Your task to perform on an android device: Open calendar and show me the first week of next month Image 0: 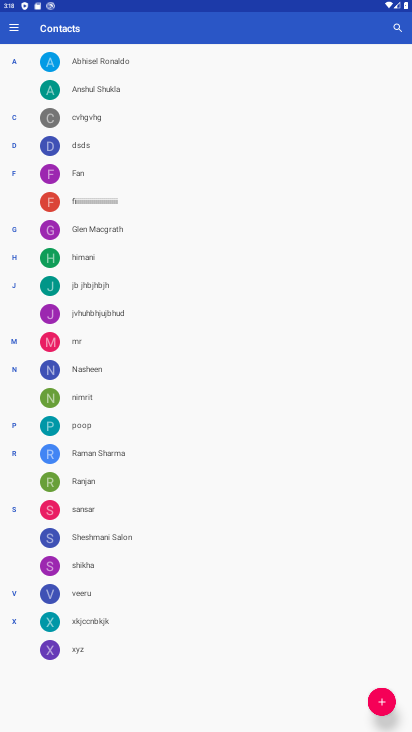
Step 0: press home button
Your task to perform on an android device: Open calendar and show me the first week of next month Image 1: 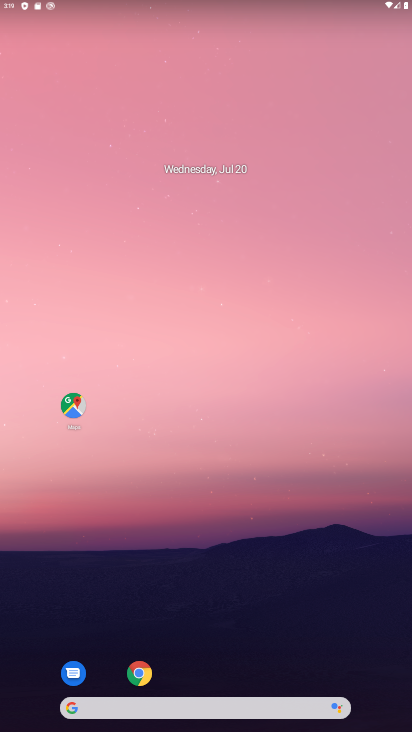
Step 1: drag from (308, 513) to (308, 294)
Your task to perform on an android device: Open calendar and show me the first week of next month Image 2: 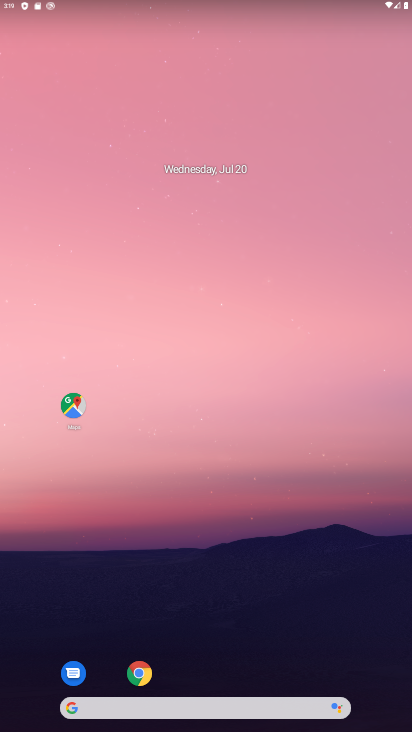
Step 2: drag from (254, 441) to (296, 98)
Your task to perform on an android device: Open calendar and show me the first week of next month Image 3: 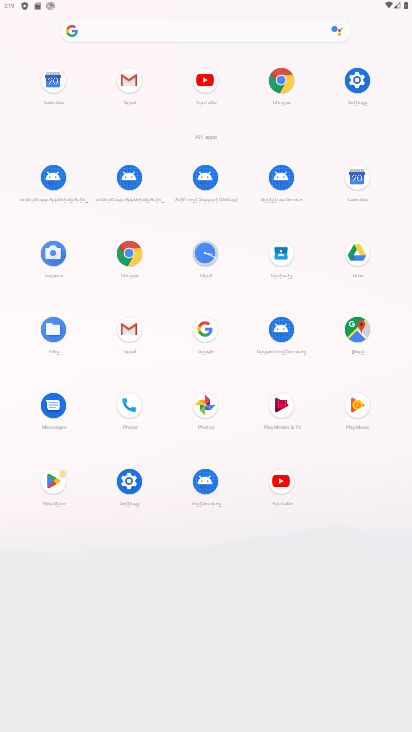
Step 3: click (354, 175)
Your task to perform on an android device: Open calendar and show me the first week of next month Image 4: 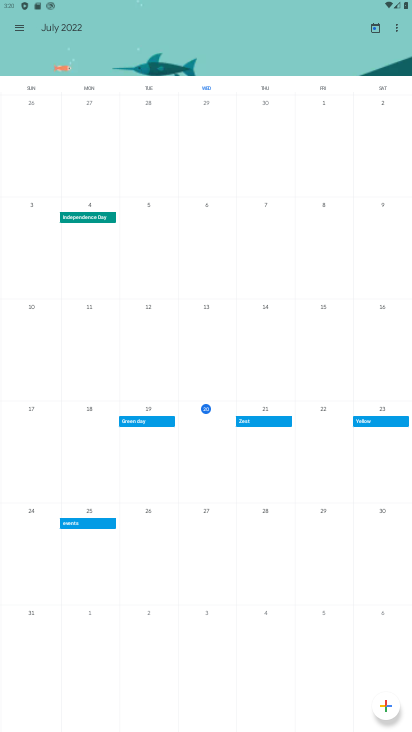
Step 4: task complete